Your task to perform on an android device: uninstall "Microsoft Authenticator" Image 0: 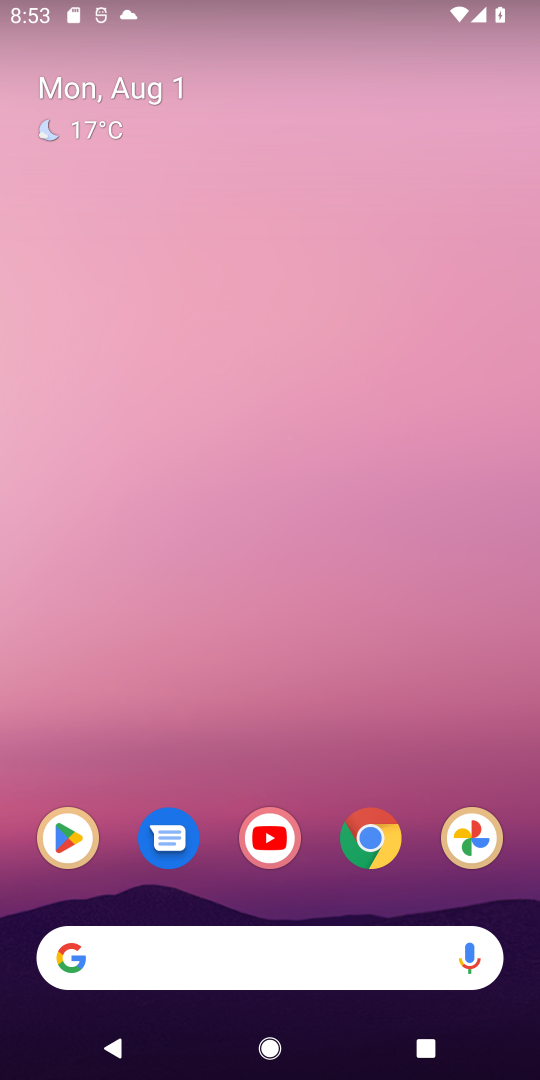
Step 0: press home button
Your task to perform on an android device: uninstall "Microsoft Authenticator" Image 1: 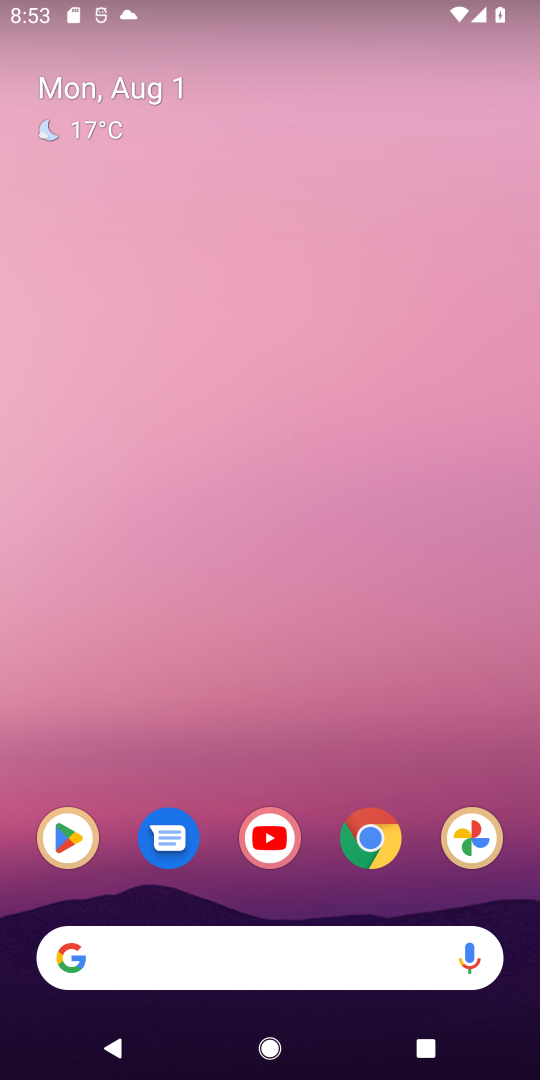
Step 1: click (90, 833)
Your task to perform on an android device: uninstall "Microsoft Authenticator" Image 2: 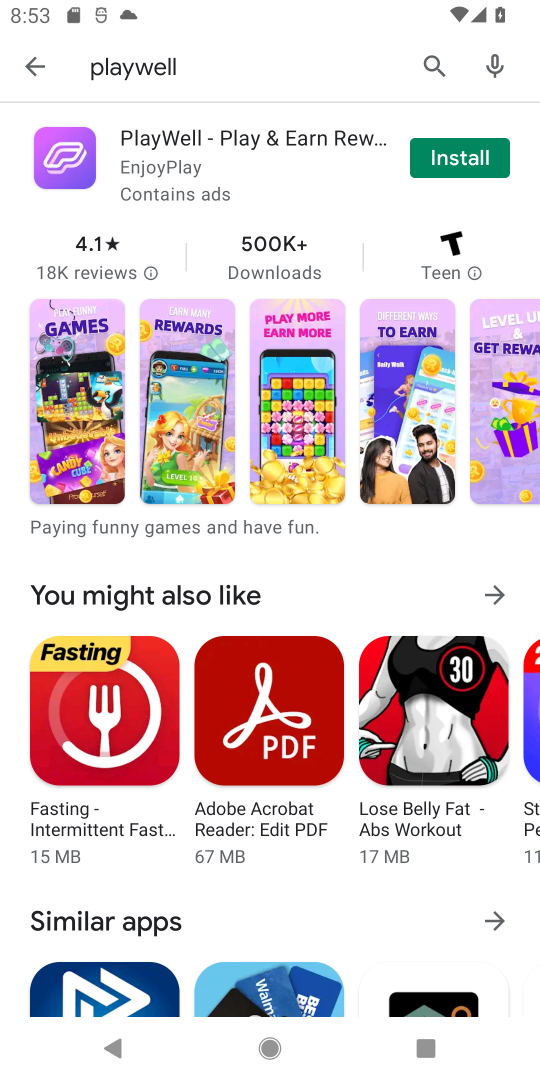
Step 2: click (421, 55)
Your task to perform on an android device: uninstall "Microsoft Authenticator" Image 3: 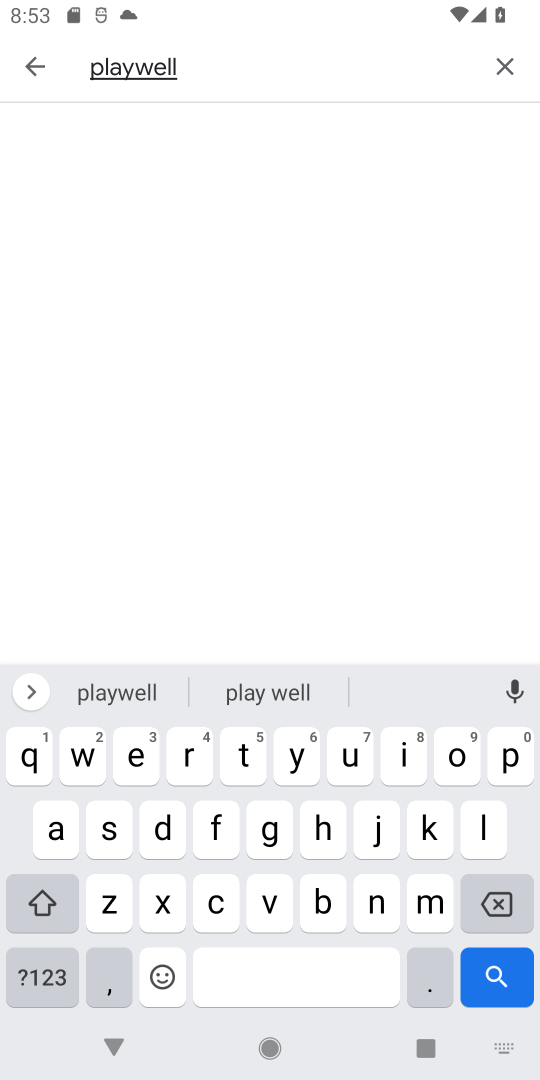
Step 3: click (507, 74)
Your task to perform on an android device: uninstall "Microsoft Authenticator" Image 4: 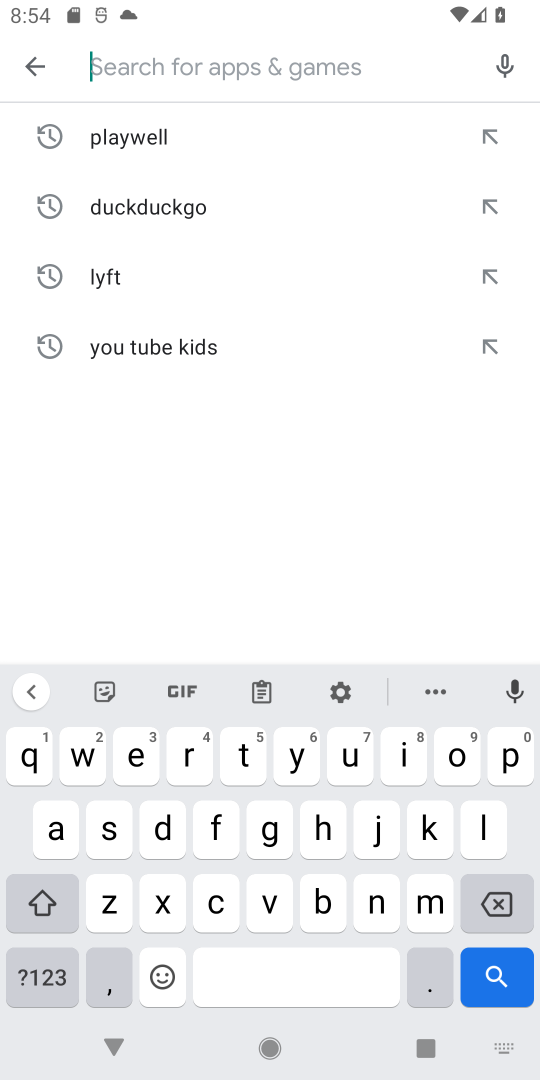
Step 4: type "authenticator"
Your task to perform on an android device: uninstall "Microsoft Authenticator" Image 5: 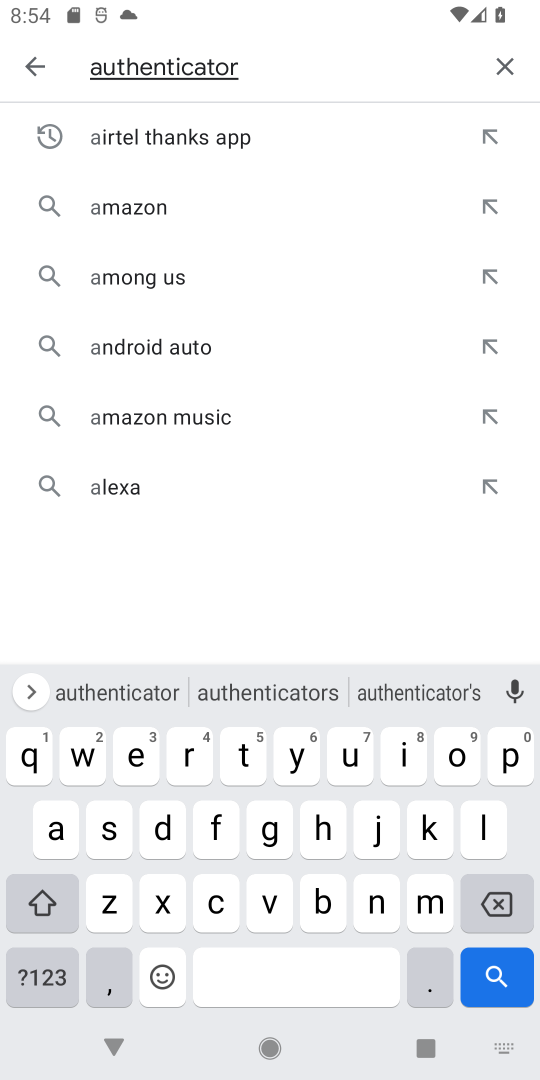
Step 5: drag from (222, 146) to (146, 387)
Your task to perform on an android device: uninstall "Microsoft Authenticator" Image 6: 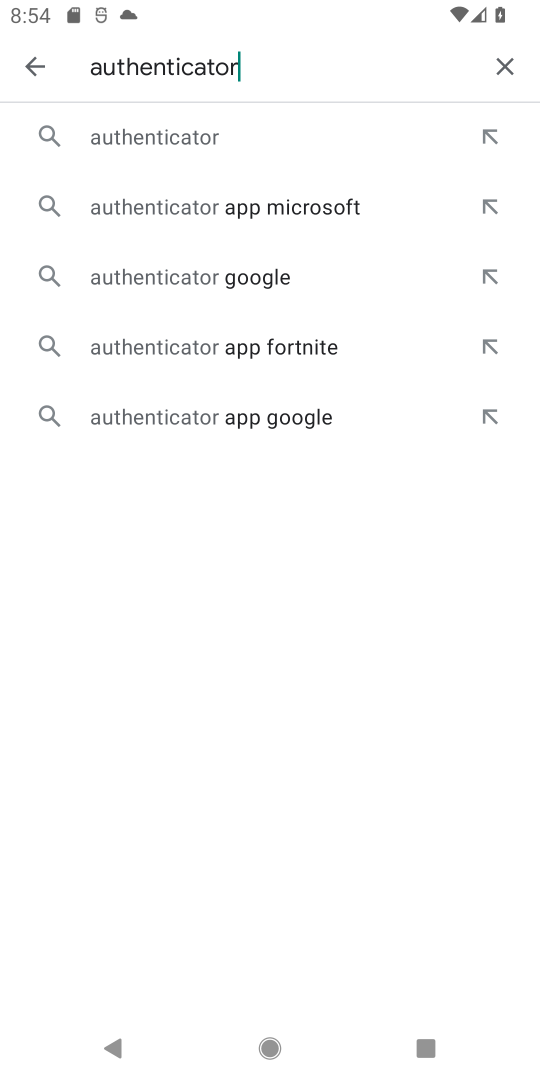
Step 6: click (270, 133)
Your task to perform on an android device: uninstall "Microsoft Authenticator" Image 7: 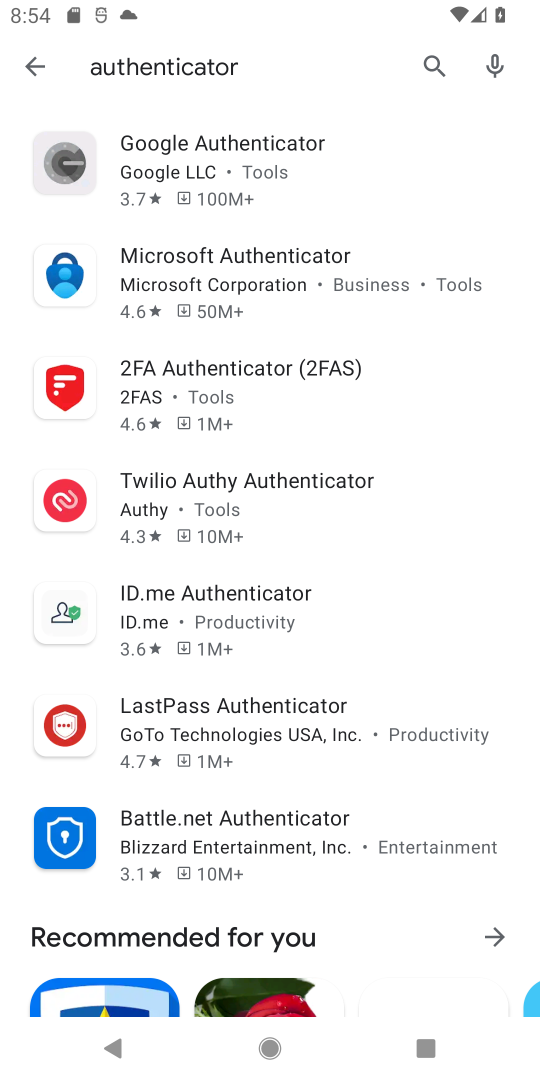
Step 7: click (219, 279)
Your task to perform on an android device: uninstall "Microsoft Authenticator" Image 8: 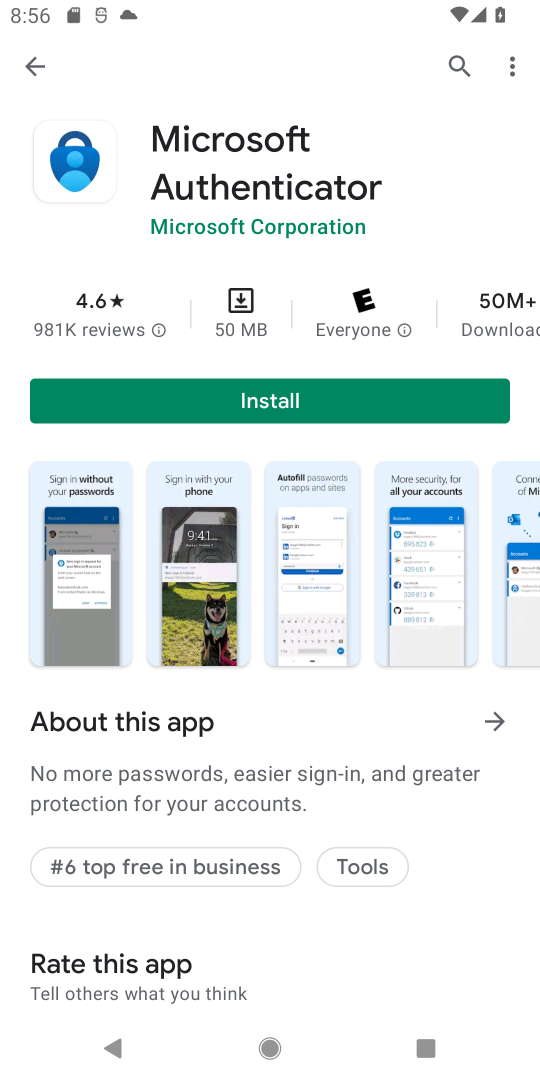
Step 8: task complete